Your task to perform on an android device: Go to Google Image 0: 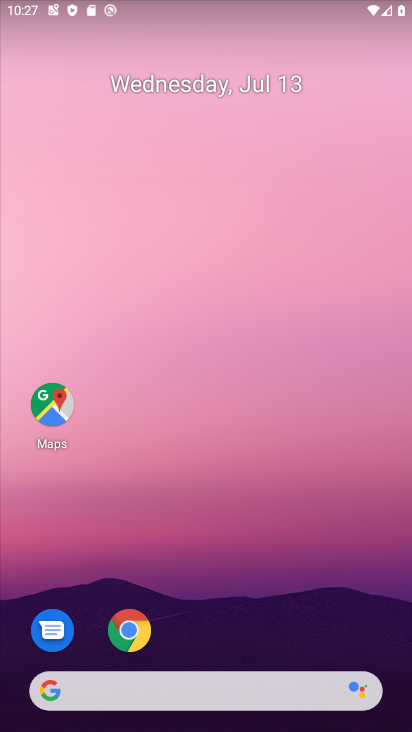
Step 0: drag from (240, 630) to (113, 42)
Your task to perform on an android device: Go to Google Image 1: 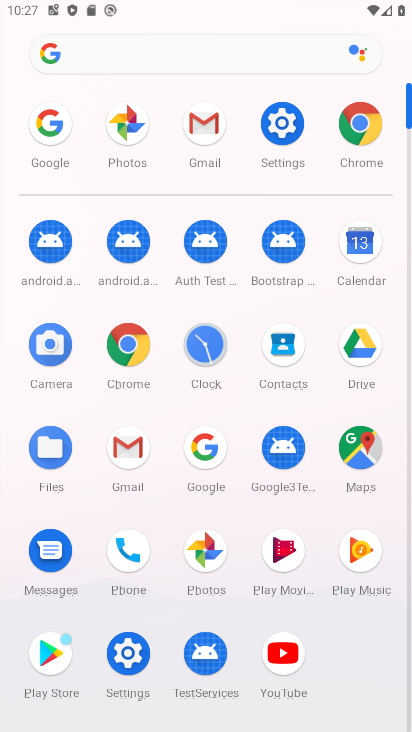
Step 1: click (211, 452)
Your task to perform on an android device: Go to Google Image 2: 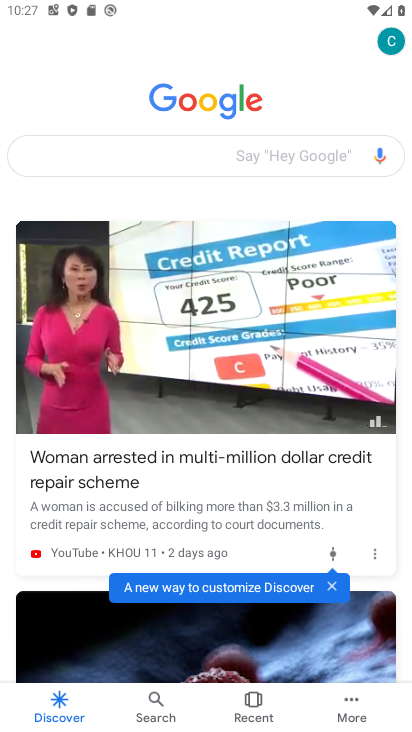
Step 2: task complete